Your task to perform on an android device: Set the phone to "Do not disturb". Image 0: 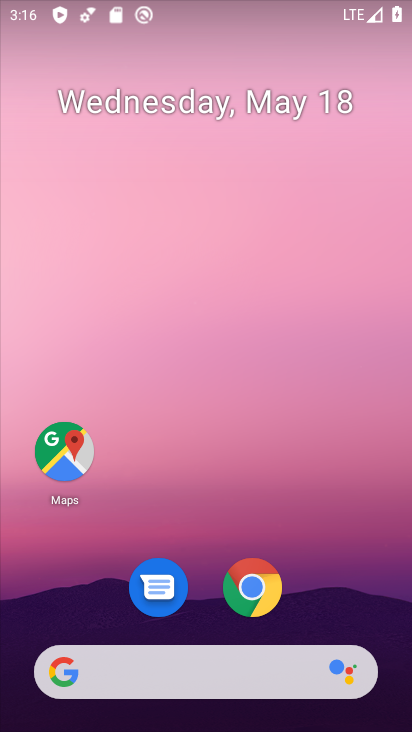
Step 0: drag from (188, 662) to (199, 231)
Your task to perform on an android device: Set the phone to "Do not disturb". Image 1: 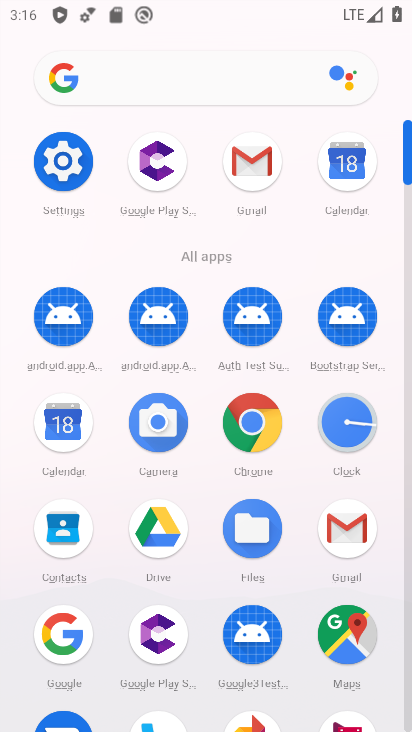
Step 1: click (74, 179)
Your task to perform on an android device: Set the phone to "Do not disturb". Image 2: 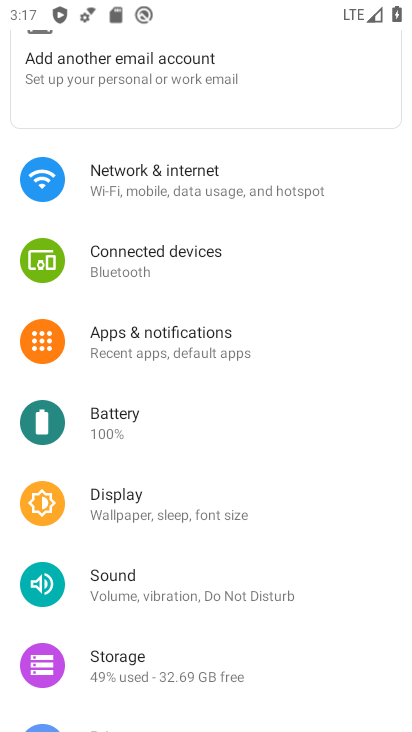
Step 2: click (167, 584)
Your task to perform on an android device: Set the phone to "Do not disturb". Image 3: 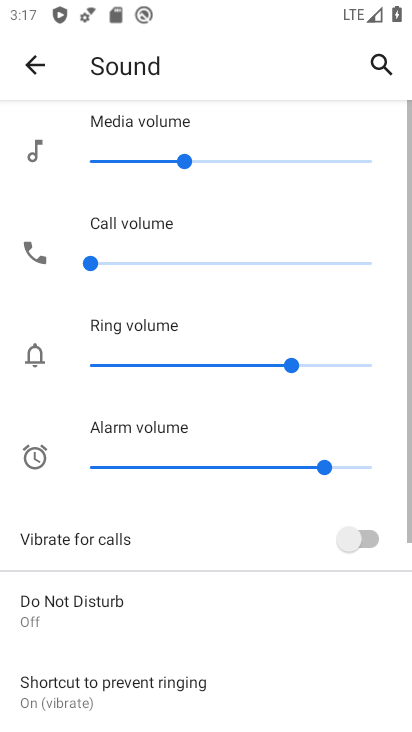
Step 3: click (192, 604)
Your task to perform on an android device: Set the phone to "Do not disturb". Image 4: 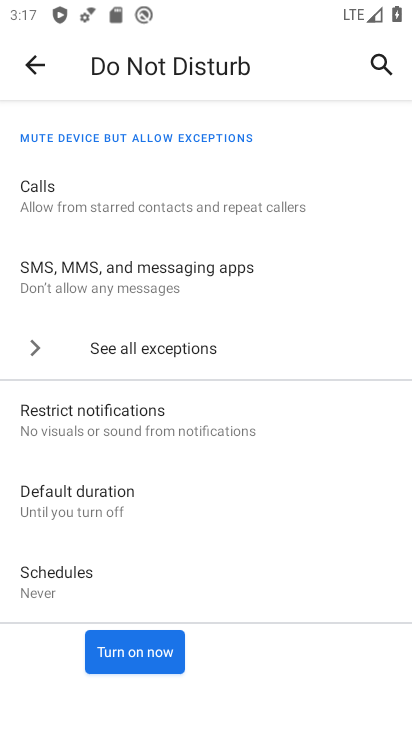
Step 4: click (148, 653)
Your task to perform on an android device: Set the phone to "Do not disturb". Image 5: 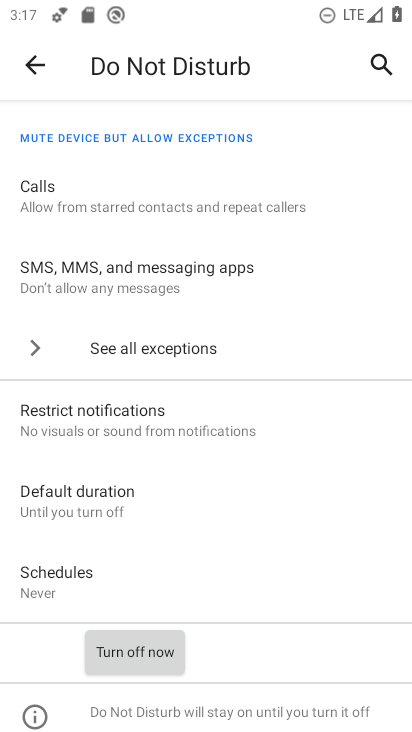
Step 5: task complete